Your task to perform on an android device: check storage Image 0: 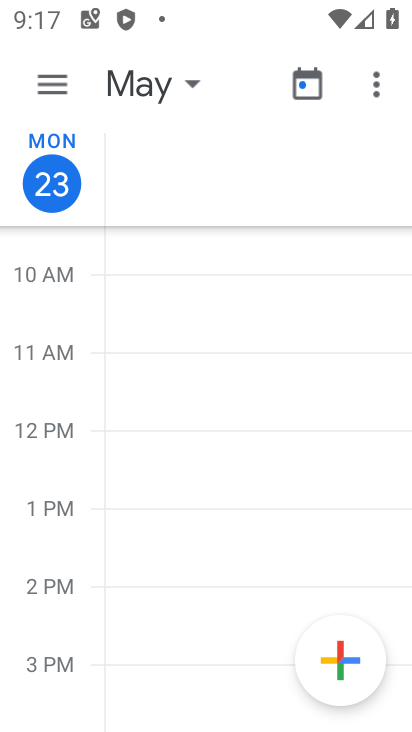
Step 0: press home button
Your task to perform on an android device: check storage Image 1: 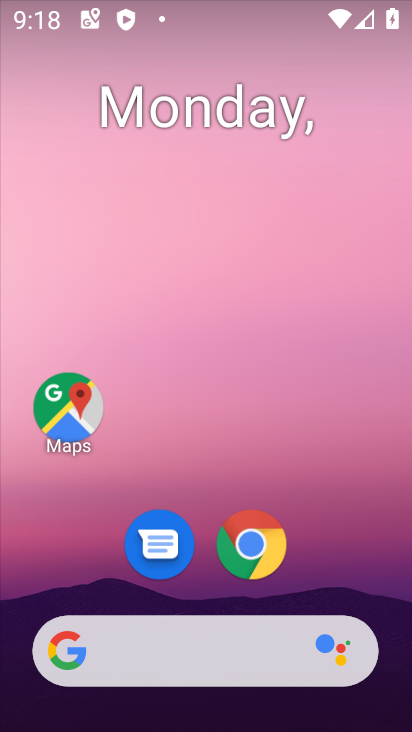
Step 1: drag from (320, 562) to (255, 81)
Your task to perform on an android device: check storage Image 2: 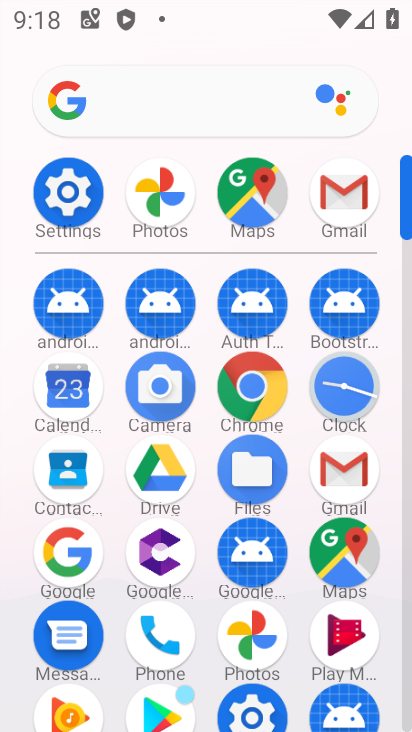
Step 2: click (70, 194)
Your task to perform on an android device: check storage Image 3: 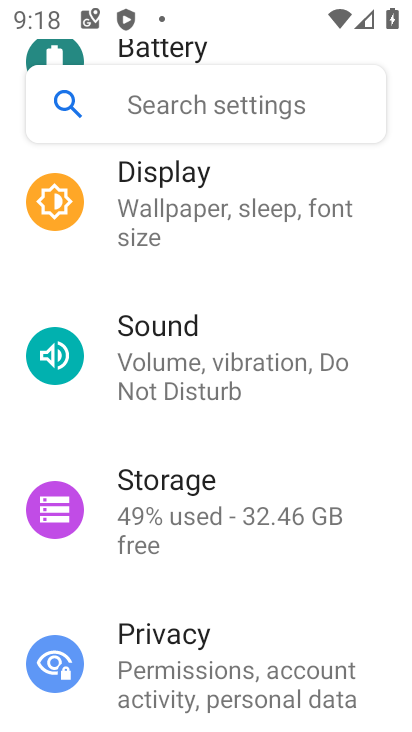
Step 3: click (189, 490)
Your task to perform on an android device: check storage Image 4: 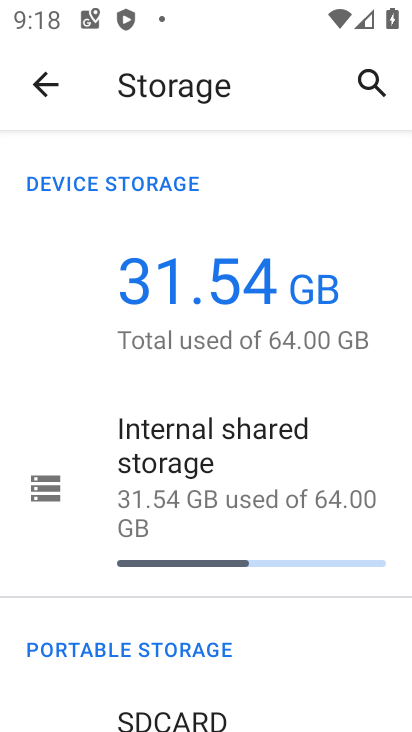
Step 4: task complete